Your task to perform on an android device: Show me productivity apps on the Play Store Image 0: 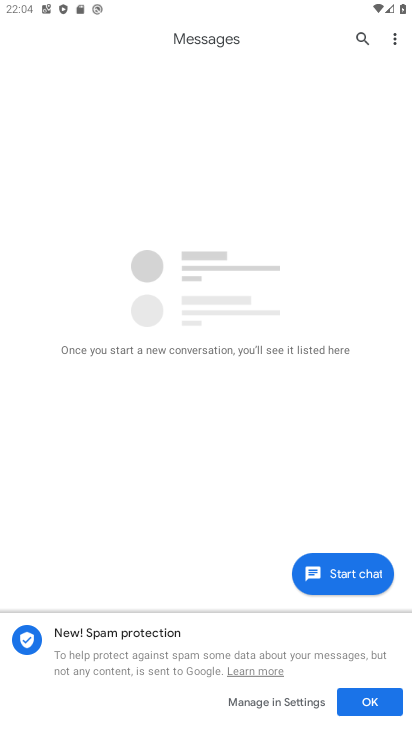
Step 0: press home button
Your task to perform on an android device: Show me productivity apps on the Play Store Image 1: 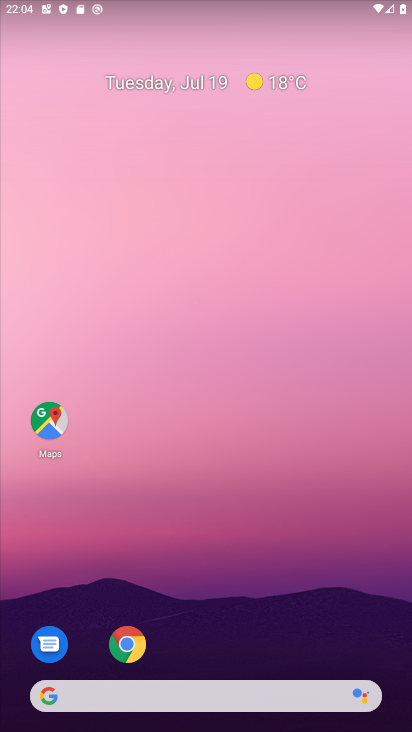
Step 1: drag from (213, 731) to (216, 120)
Your task to perform on an android device: Show me productivity apps on the Play Store Image 2: 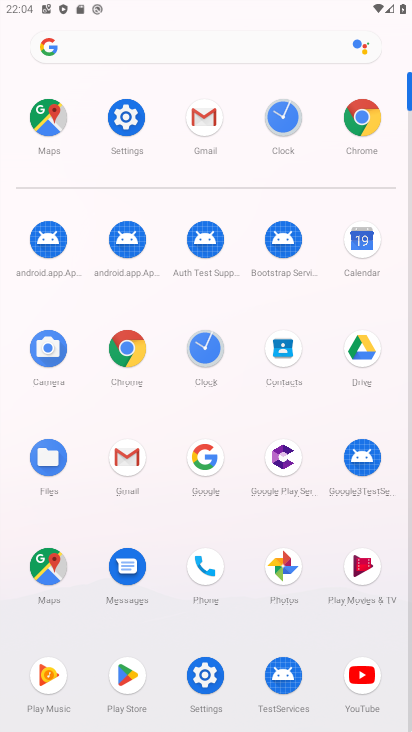
Step 2: click (125, 671)
Your task to perform on an android device: Show me productivity apps on the Play Store Image 3: 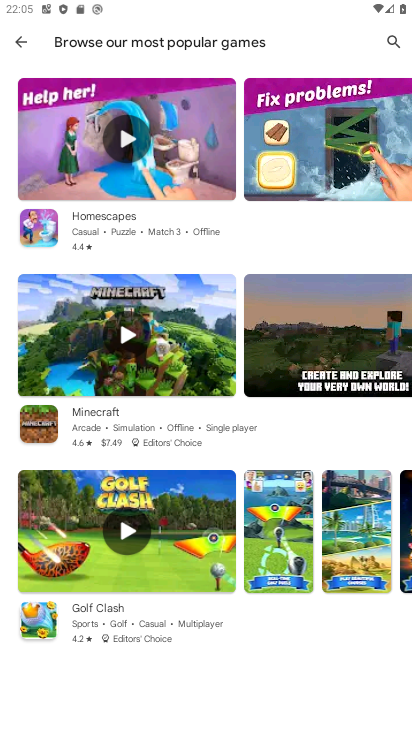
Step 3: click (23, 40)
Your task to perform on an android device: Show me productivity apps on the Play Store Image 4: 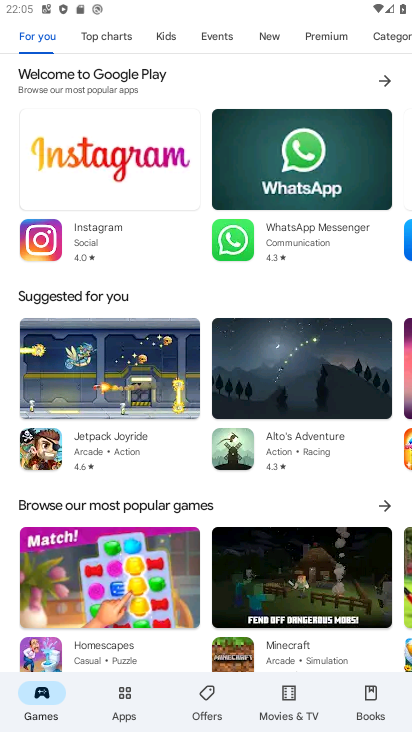
Step 4: click (121, 704)
Your task to perform on an android device: Show me productivity apps on the Play Store Image 5: 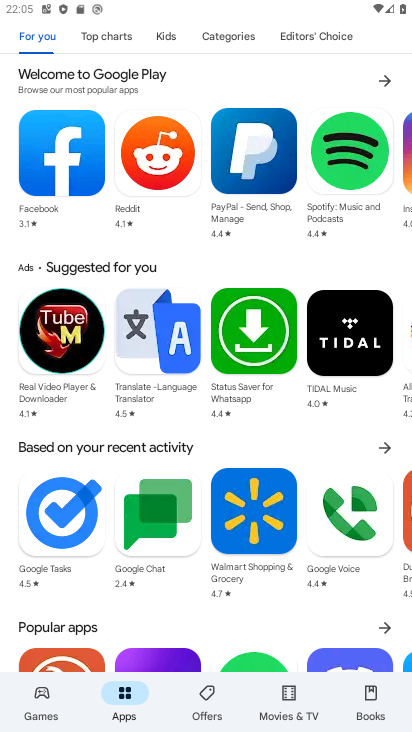
Step 5: click (227, 37)
Your task to perform on an android device: Show me productivity apps on the Play Store Image 6: 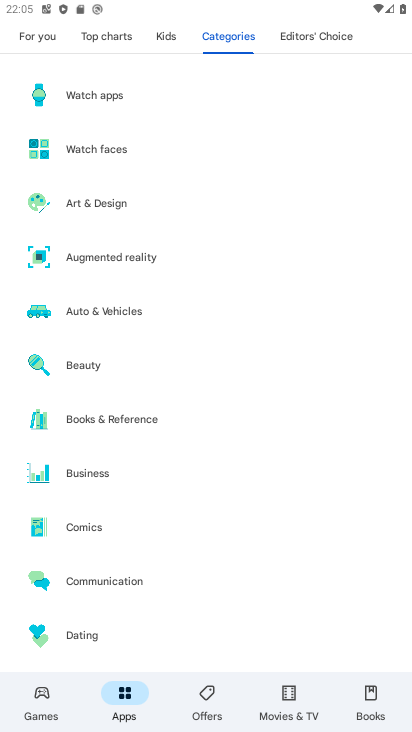
Step 6: drag from (145, 621) to (128, 192)
Your task to perform on an android device: Show me productivity apps on the Play Store Image 7: 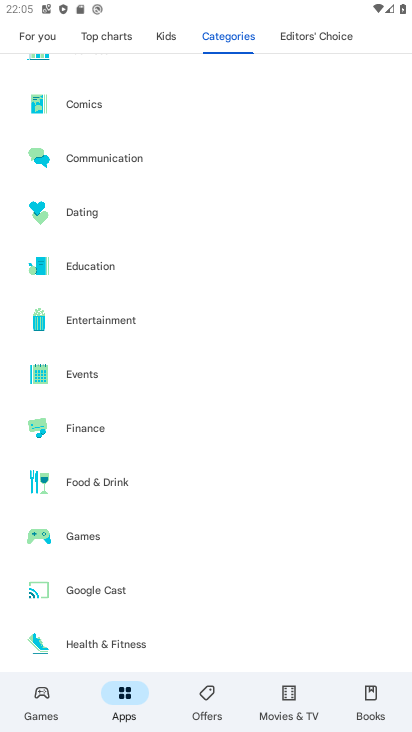
Step 7: drag from (96, 619) to (104, 293)
Your task to perform on an android device: Show me productivity apps on the Play Store Image 8: 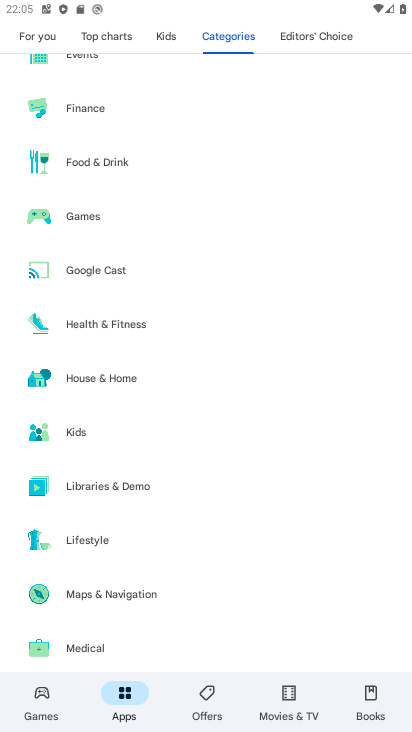
Step 8: drag from (161, 617) to (153, 316)
Your task to perform on an android device: Show me productivity apps on the Play Store Image 9: 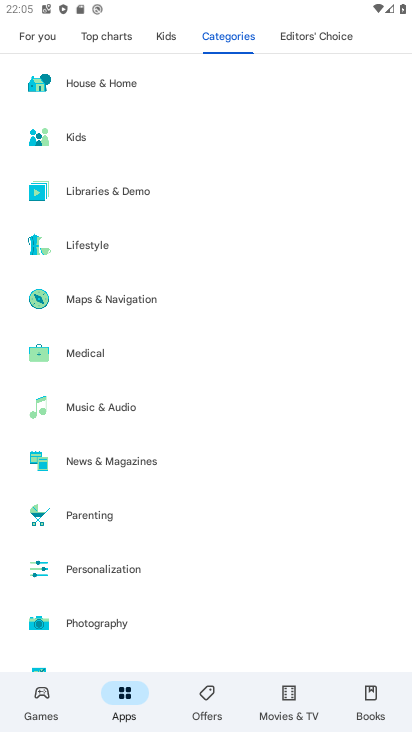
Step 9: drag from (103, 632) to (94, 335)
Your task to perform on an android device: Show me productivity apps on the Play Store Image 10: 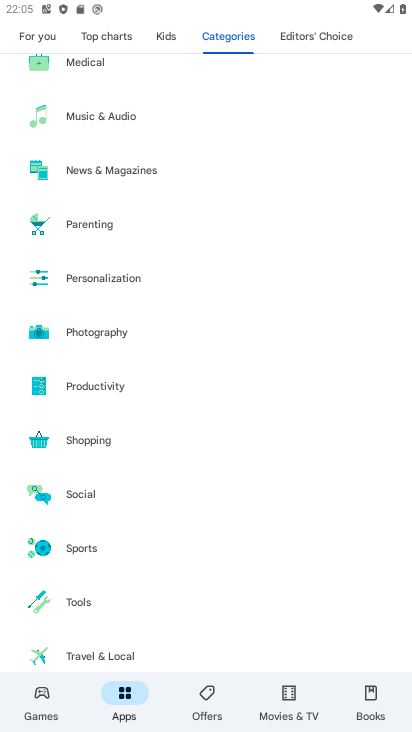
Step 10: click (101, 385)
Your task to perform on an android device: Show me productivity apps on the Play Store Image 11: 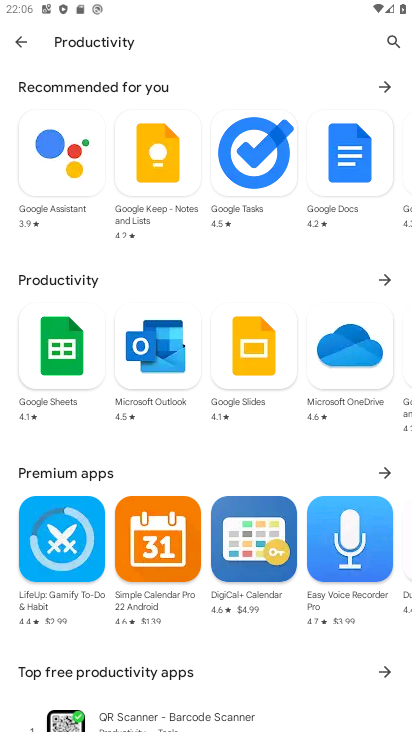
Step 11: task complete